Your task to perform on an android device: add a label to a message in the gmail app Image 0: 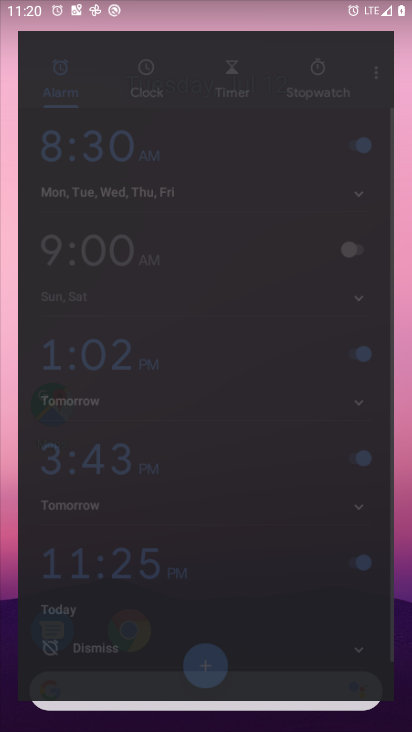
Step 0: press home button
Your task to perform on an android device: add a label to a message in the gmail app Image 1: 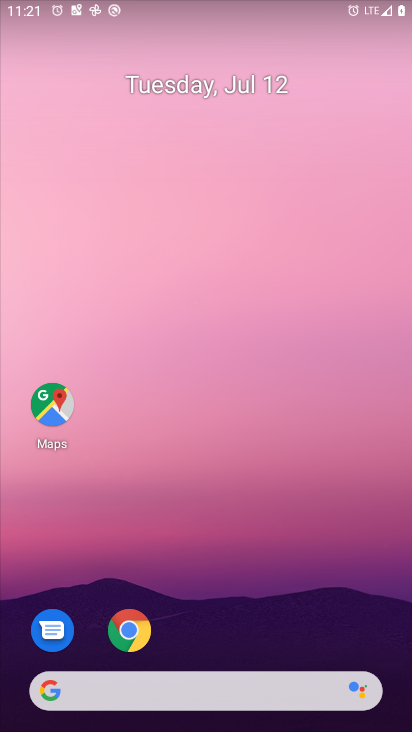
Step 1: drag from (253, 636) to (259, 68)
Your task to perform on an android device: add a label to a message in the gmail app Image 2: 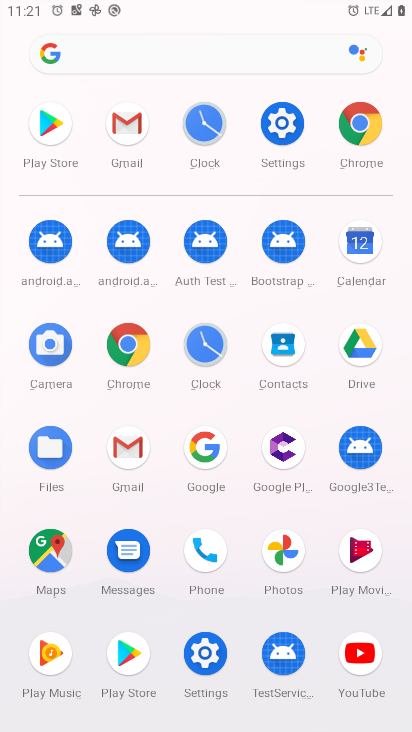
Step 2: click (126, 451)
Your task to perform on an android device: add a label to a message in the gmail app Image 3: 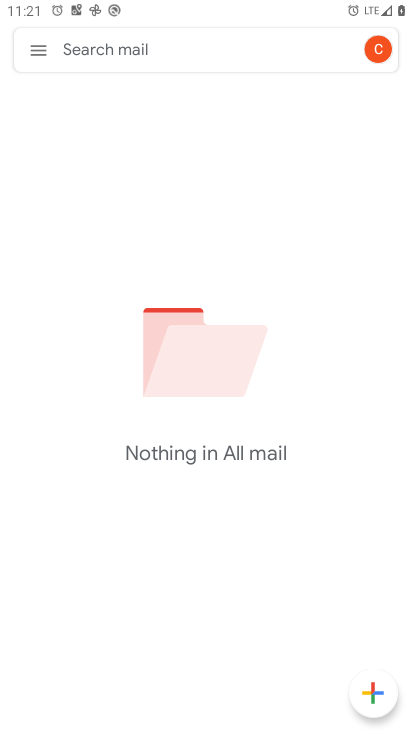
Step 3: click (36, 44)
Your task to perform on an android device: add a label to a message in the gmail app Image 4: 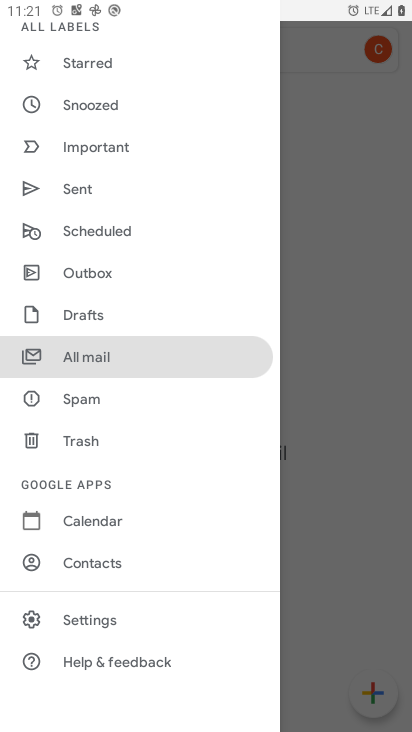
Step 4: click (103, 356)
Your task to perform on an android device: add a label to a message in the gmail app Image 5: 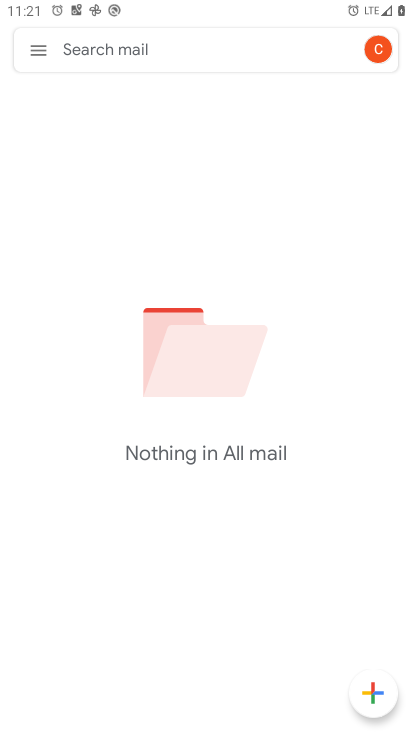
Step 5: task complete